Your task to perform on an android device: open device folders in google photos Image 0: 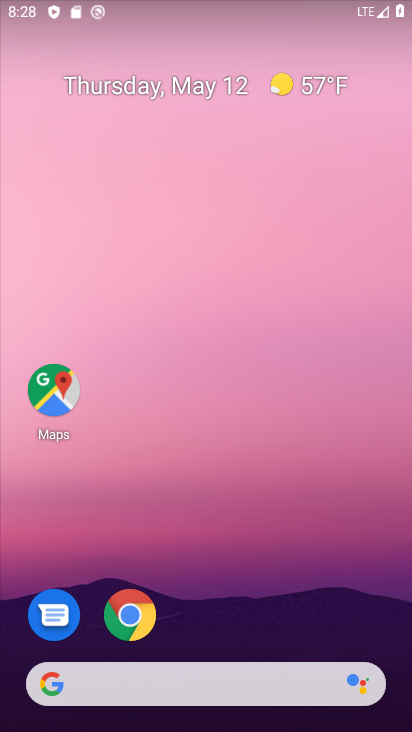
Step 0: drag from (245, 551) to (217, 19)
Your task to perform on an android device: open device folders in google photos Image 1: 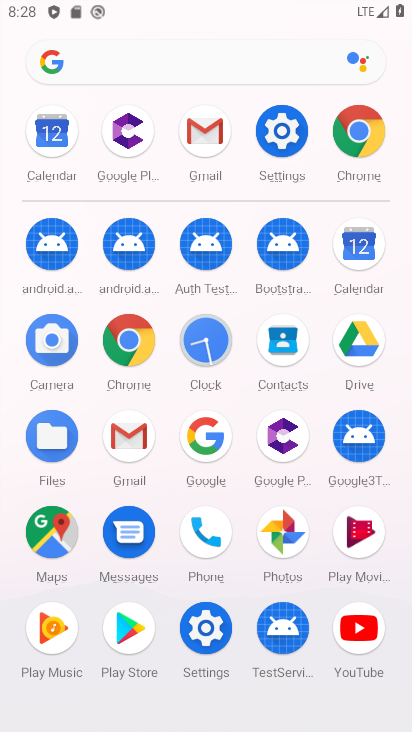
Step 1: drag from (11, 489) to (19, 234)
Your task to perform on an android device: open device folders in google photos Image 2: 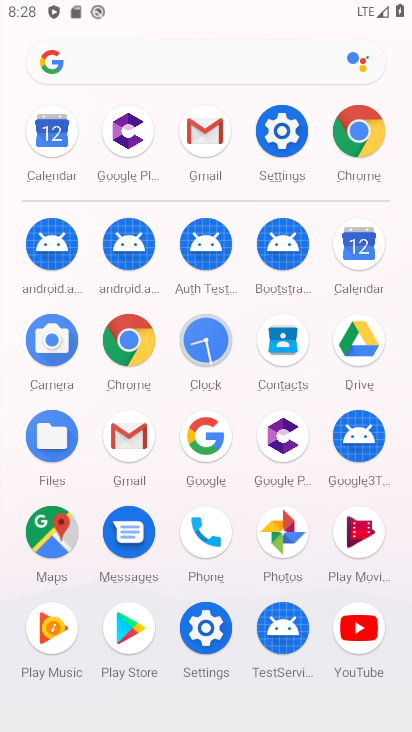
Step 2: click (279, 534)
Your task to perform on an android device: open device folders in google photos Image 3: 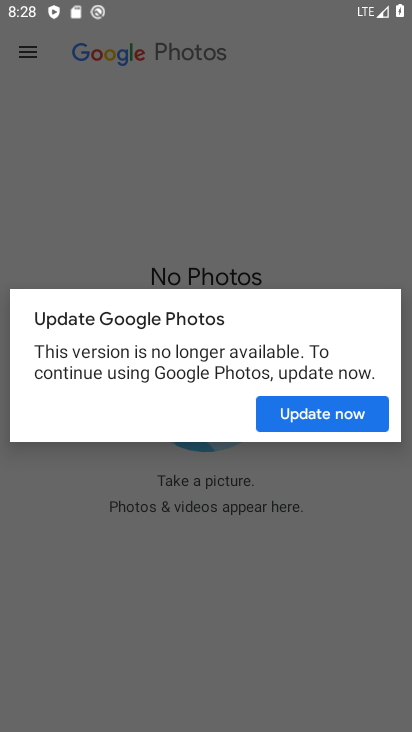
Step 3: press back button
Your task to perform on an android device: open device folders in google photos Image 4: 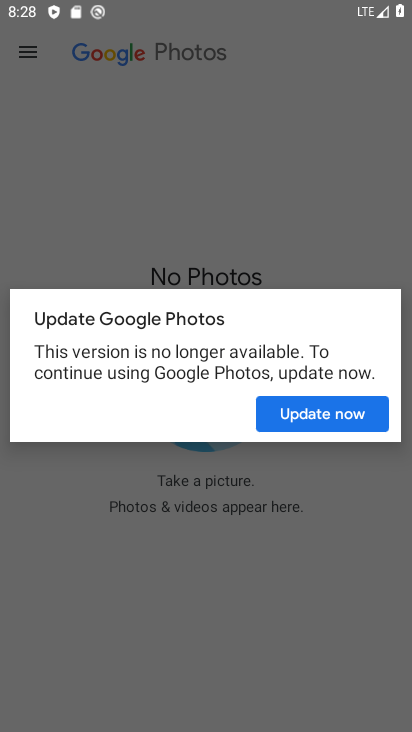
Step 4: click (330, 413)
Your task to perform on an android device: open device folders in google photos Image 5: 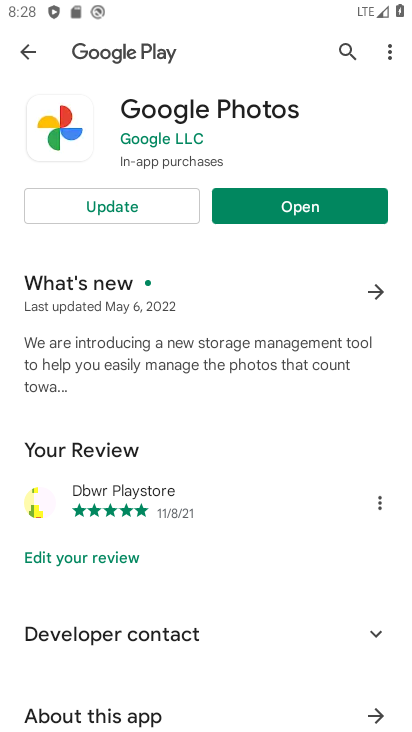
Step 5: click (134, 202)
Your task to perform on an android device: open device folders in google photos Image 6: 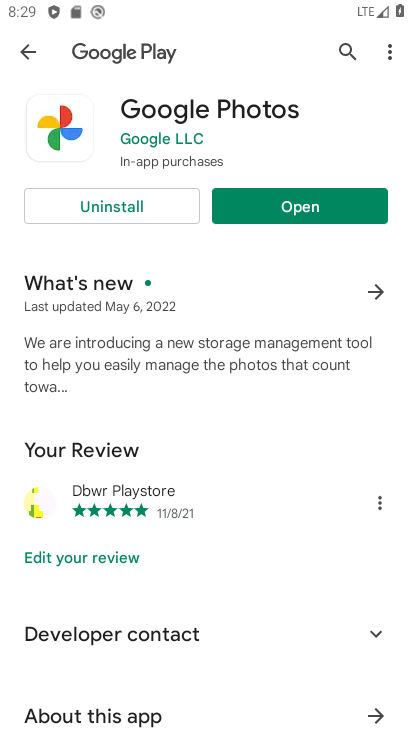
Step 6: click (271, 206)
Your task to perform on an android device: open device folders in google photos Image 7: 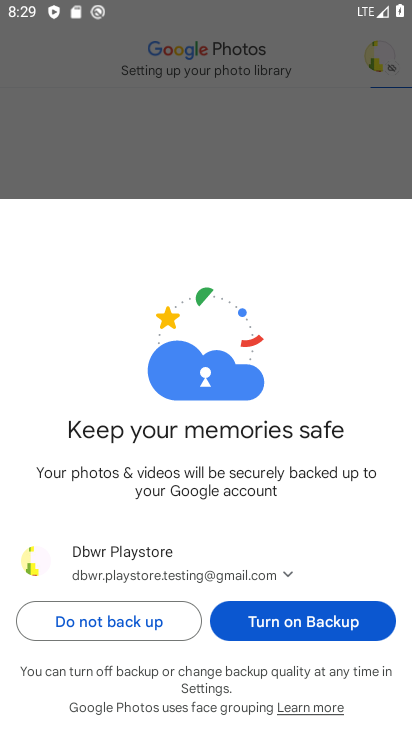
Step 7: click (348, 617)
Your task to perform on an android device: open device folders in google photos Image 8: 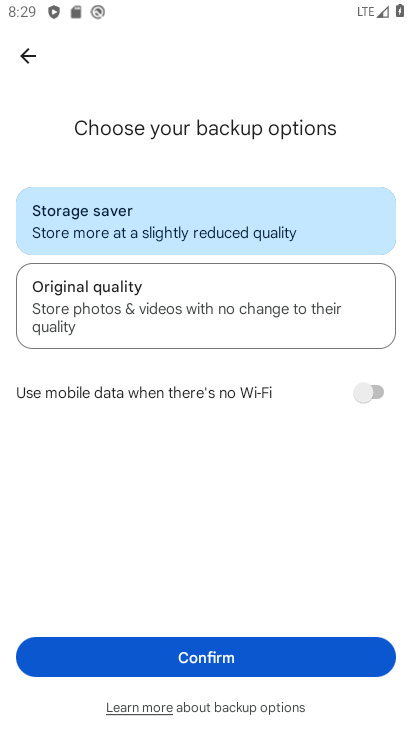
Step 8: click (296, 643)
Your task to perform on an android device: open device folders in google photos Image 9: 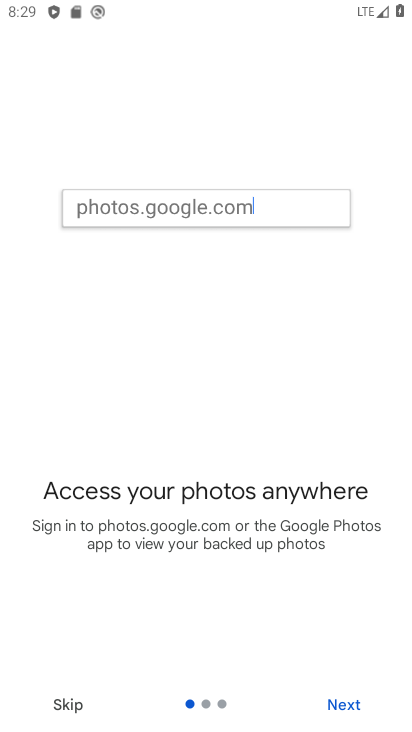
Step 9: click (329, 702)
Your task to perform on an android device: open device folders in google photos Image 10: 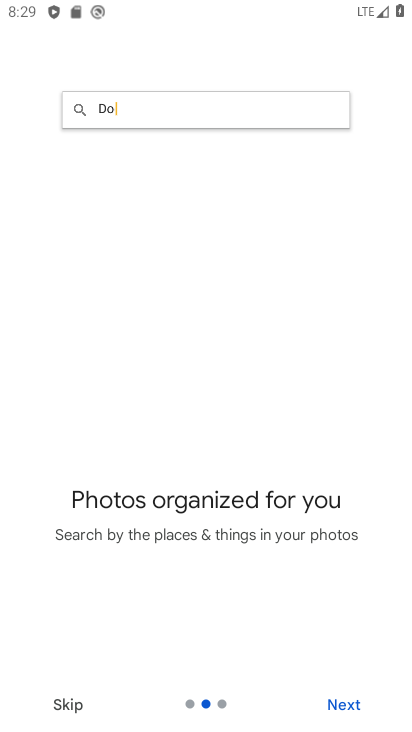
Step 10: click (329, 702)
Your task to perform on an android device: open device folders in google photos Image 11: 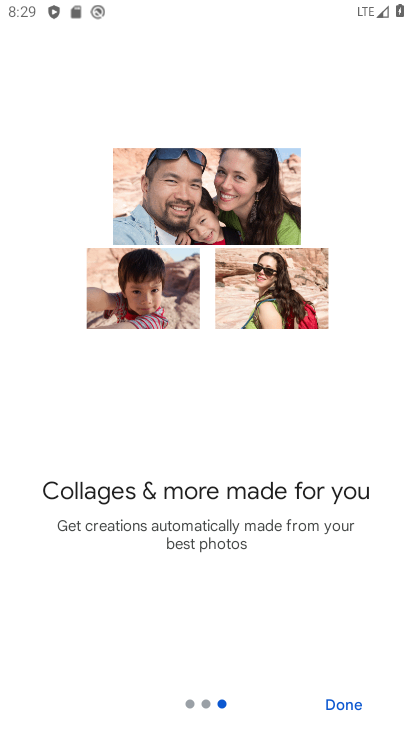
Step 11: click (329, 702)
Your task to perform on an android device: open device folders in google photos Image 12: 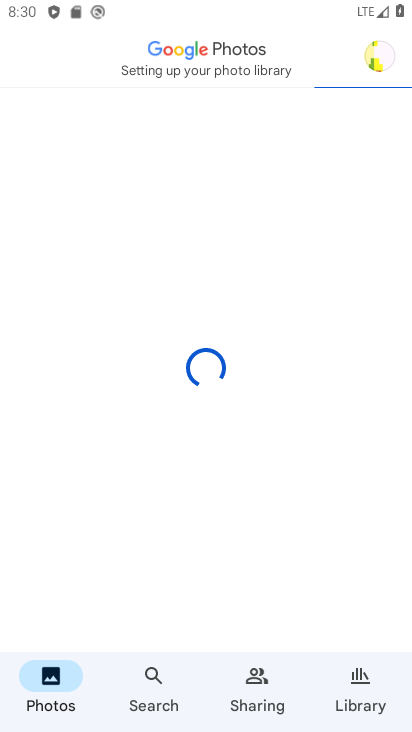
Step 12: click (363, 667)
Your task to perform on an android device: open device folders in google photos Image 13: 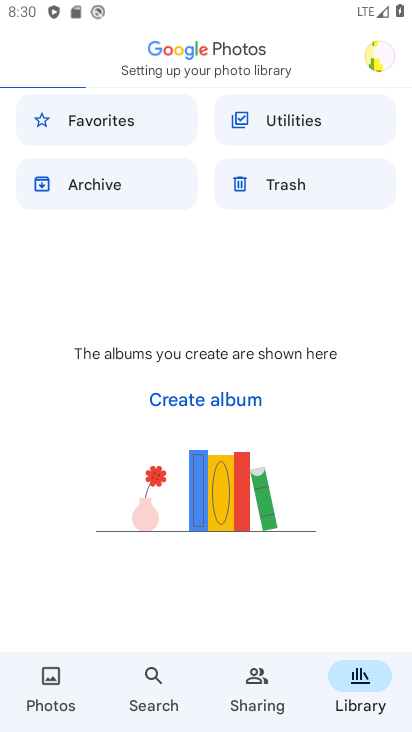
Step 13: task complete